Your task to perform on an android device: Show me the alarms in the clock app Image 0: 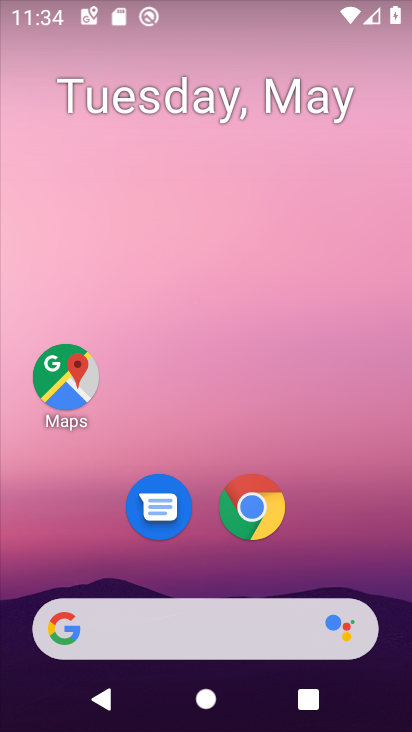
Step 0: drag from (235, 226) to (208, 39)
Your task to perform on an android device: Show me the alarms in the clock app Image 1: 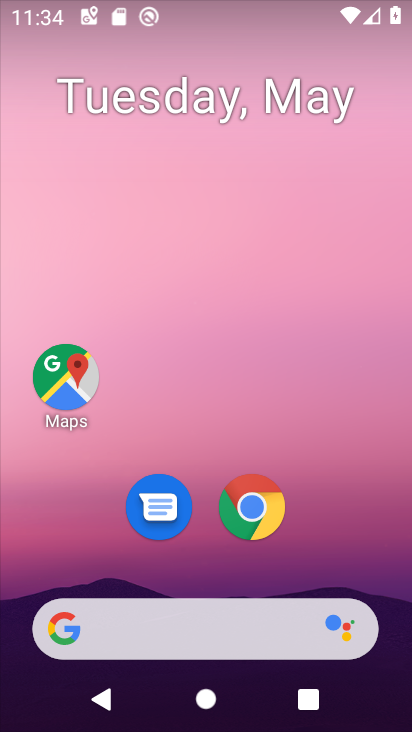
Step 1: drag from (255, 683) to (293, 212)
Your task to perform on an android device: Show me the alarms in the clock app Image 2: 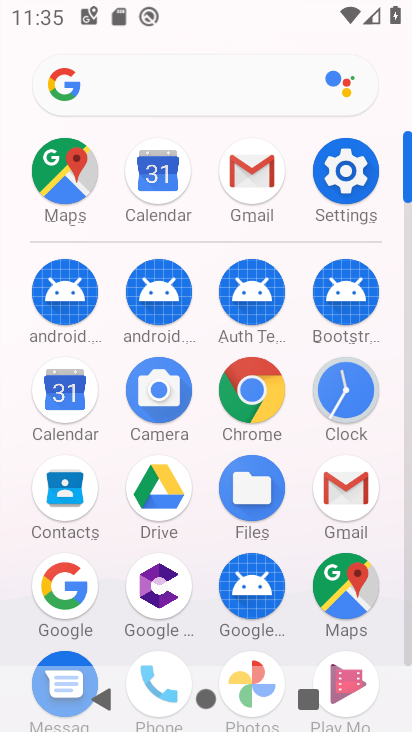
Step 2: click (370, 385)
Your task to perform on an android device: Show me the alarms in the clock app Image 3: 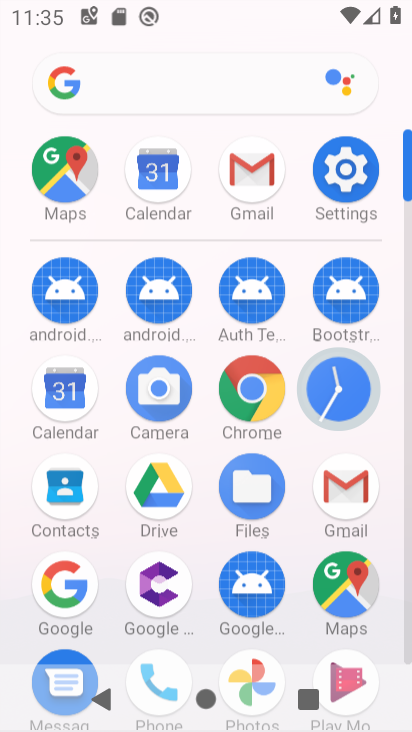
Step 3: click (365, 384)
Your task to perform on an android device: Show me the alarms in the clock app Image 4: 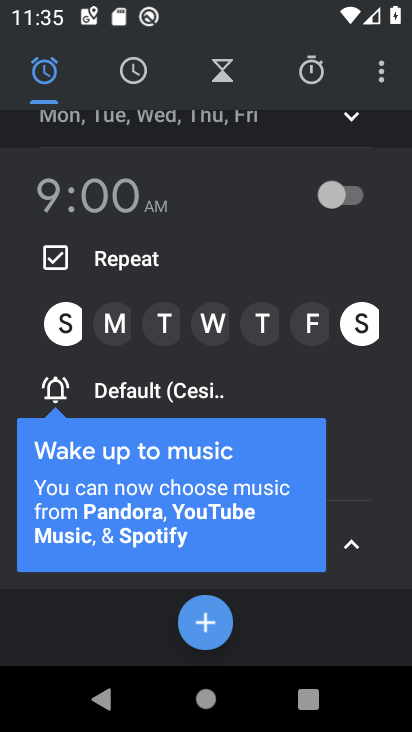
Step 4: task complete